Your task to perform on an android device: Search for pizza restaurants on Maps Image 0: 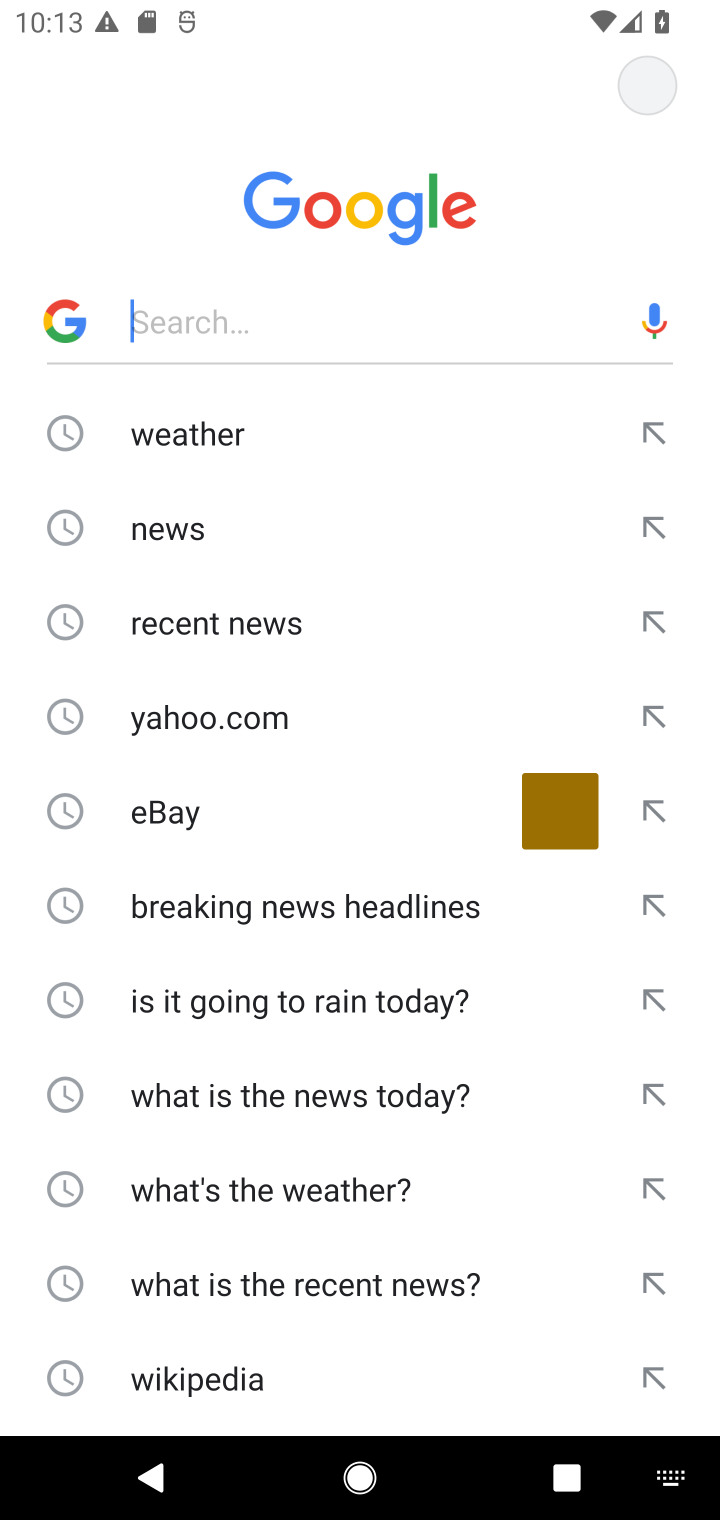
Step 0: press home button
Your task to perform on an android device: Search for pizza restaurants on Maps Image 1: 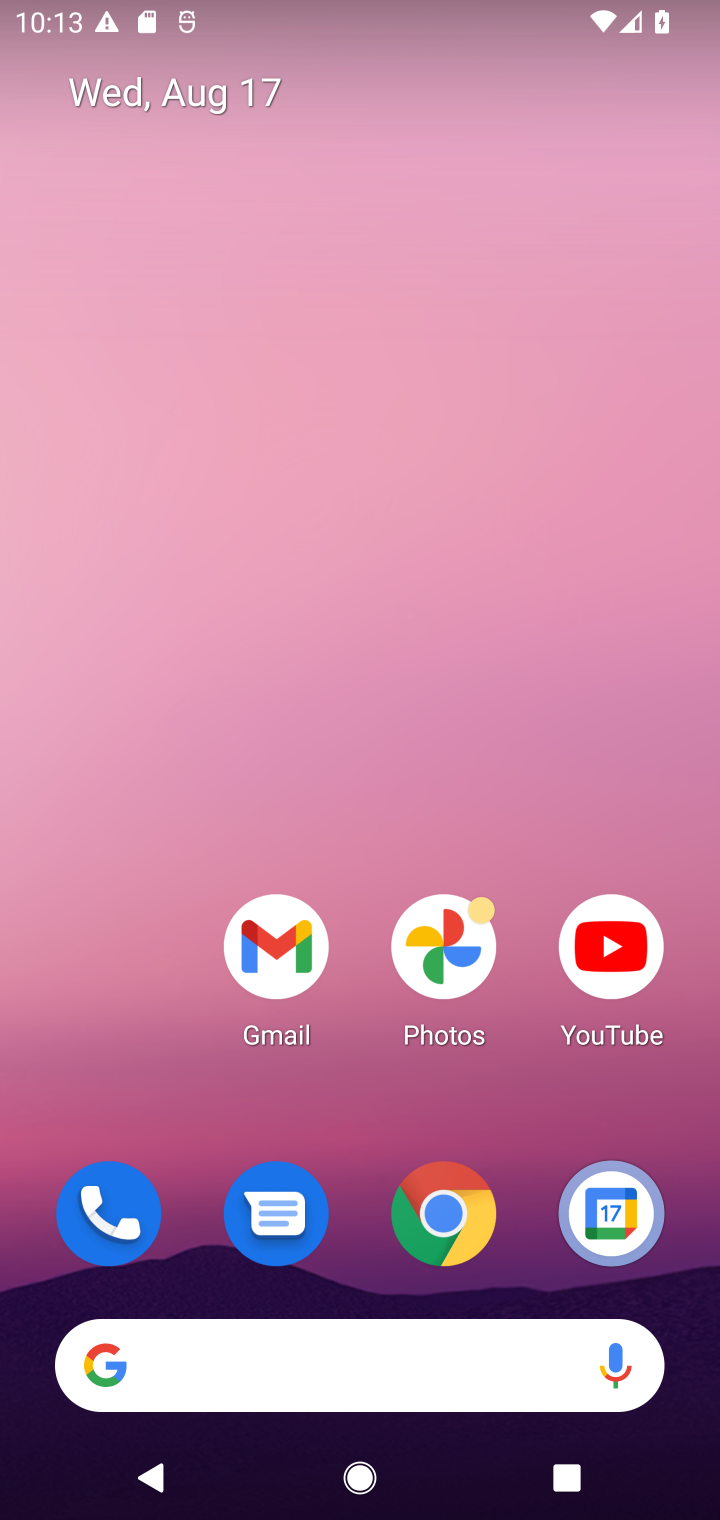
Step 1: drag from (674, 1288) to (425, 51)
Your task to perform on an android device: Search for pizza restaurants on Maps Image 2: 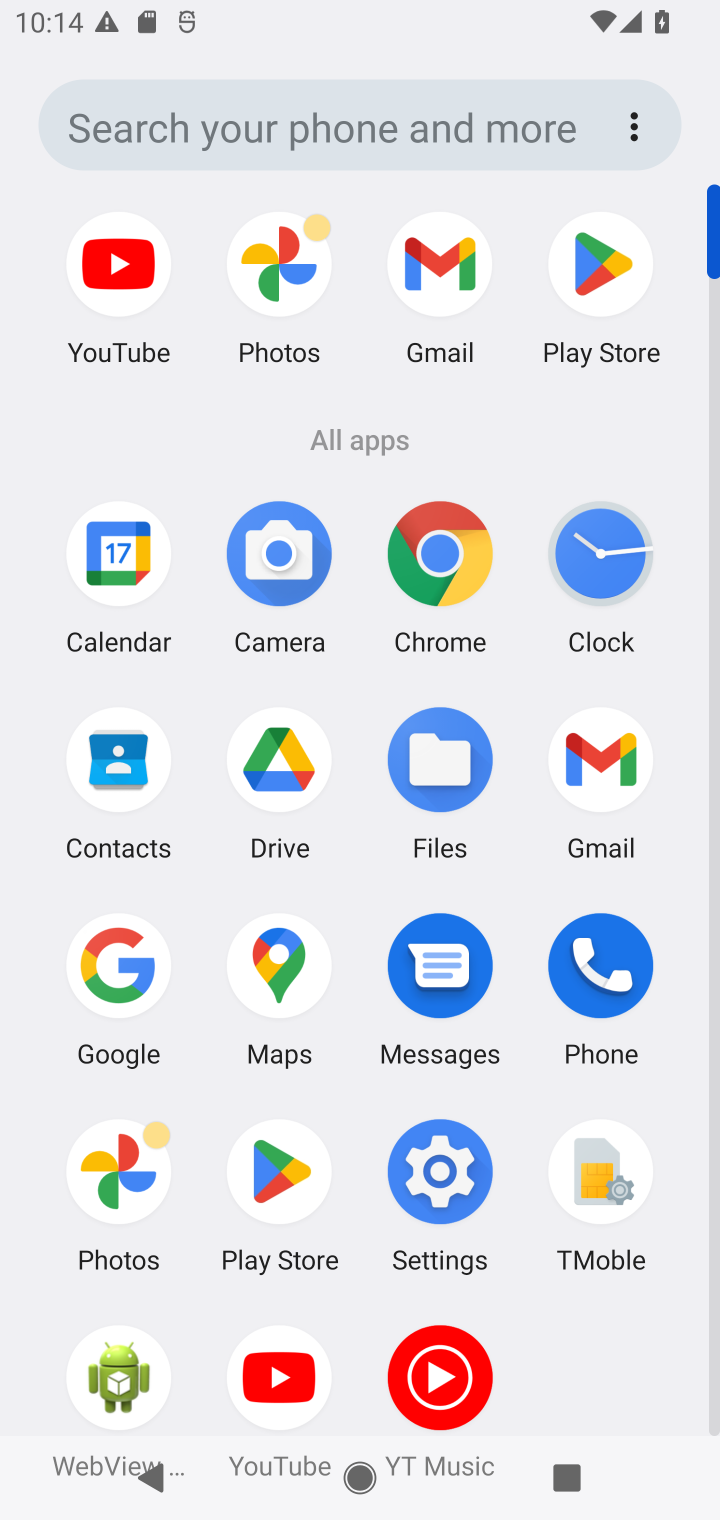
Step 2: click (270, 974)
Your task to perform on an android device: Search for pizza restaurants on Maps Image 3: 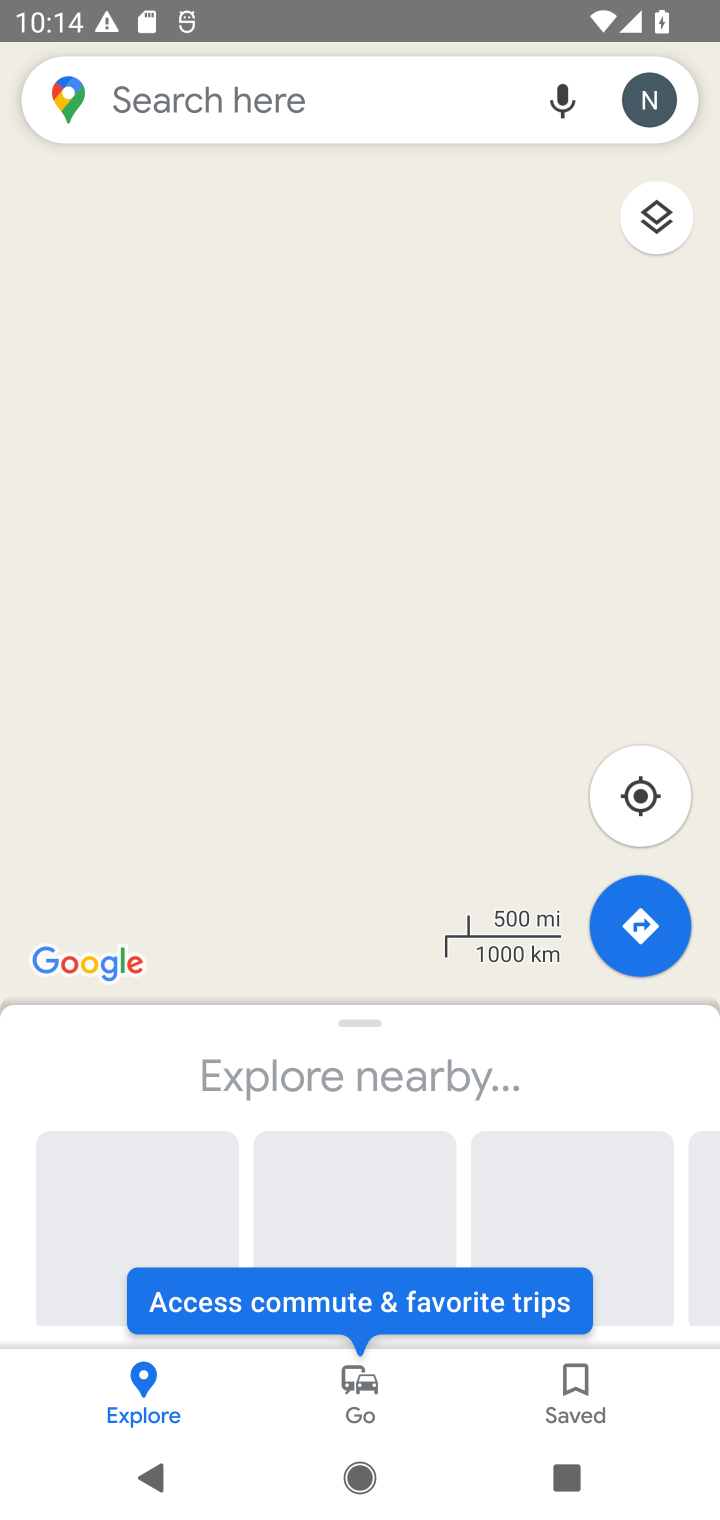
Step 3: click (199, 87)
Your task to perform on an android device: Search for pizza restaurants on Maps Image 4: 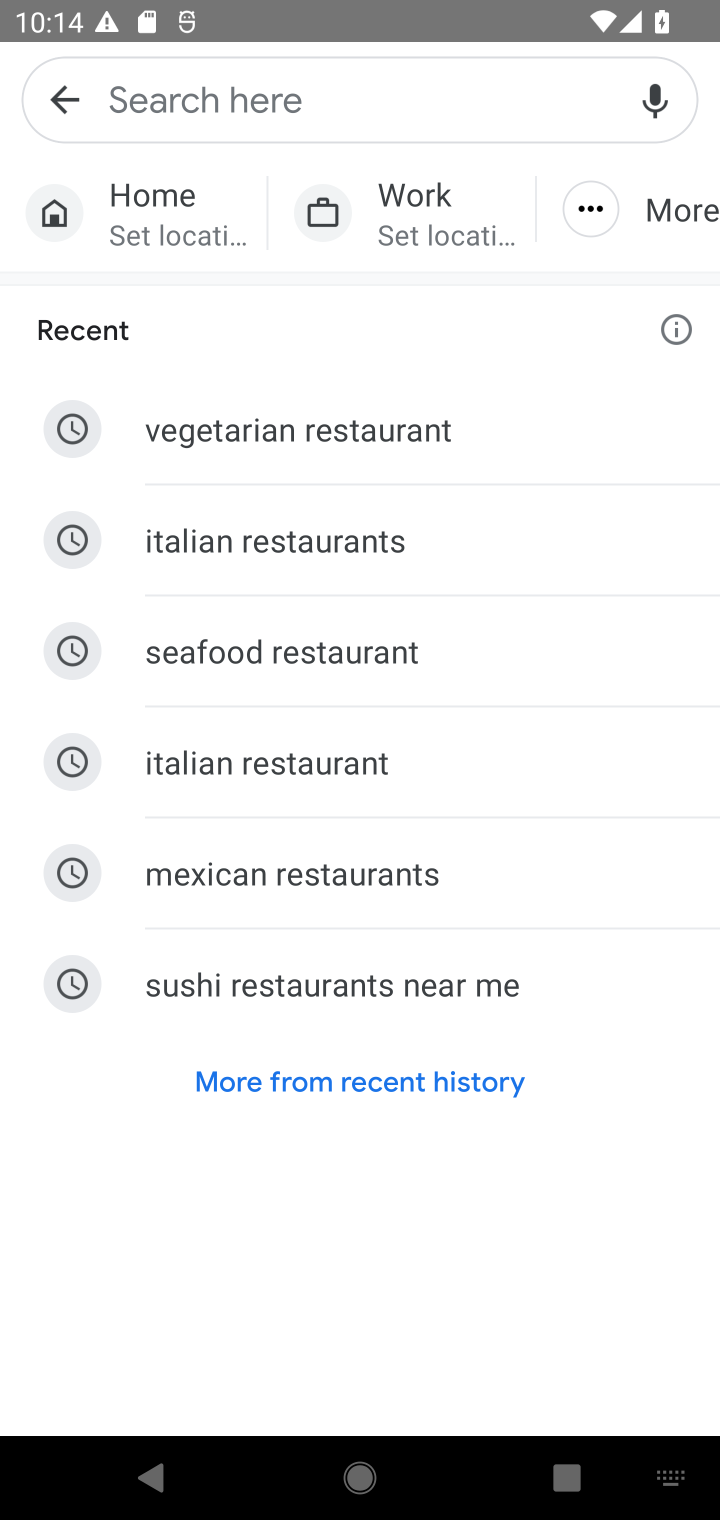
Step 4: type "pizza restaurants"
Your task to perform on an android device: Search for pizza restaurants on Maps Image 5: 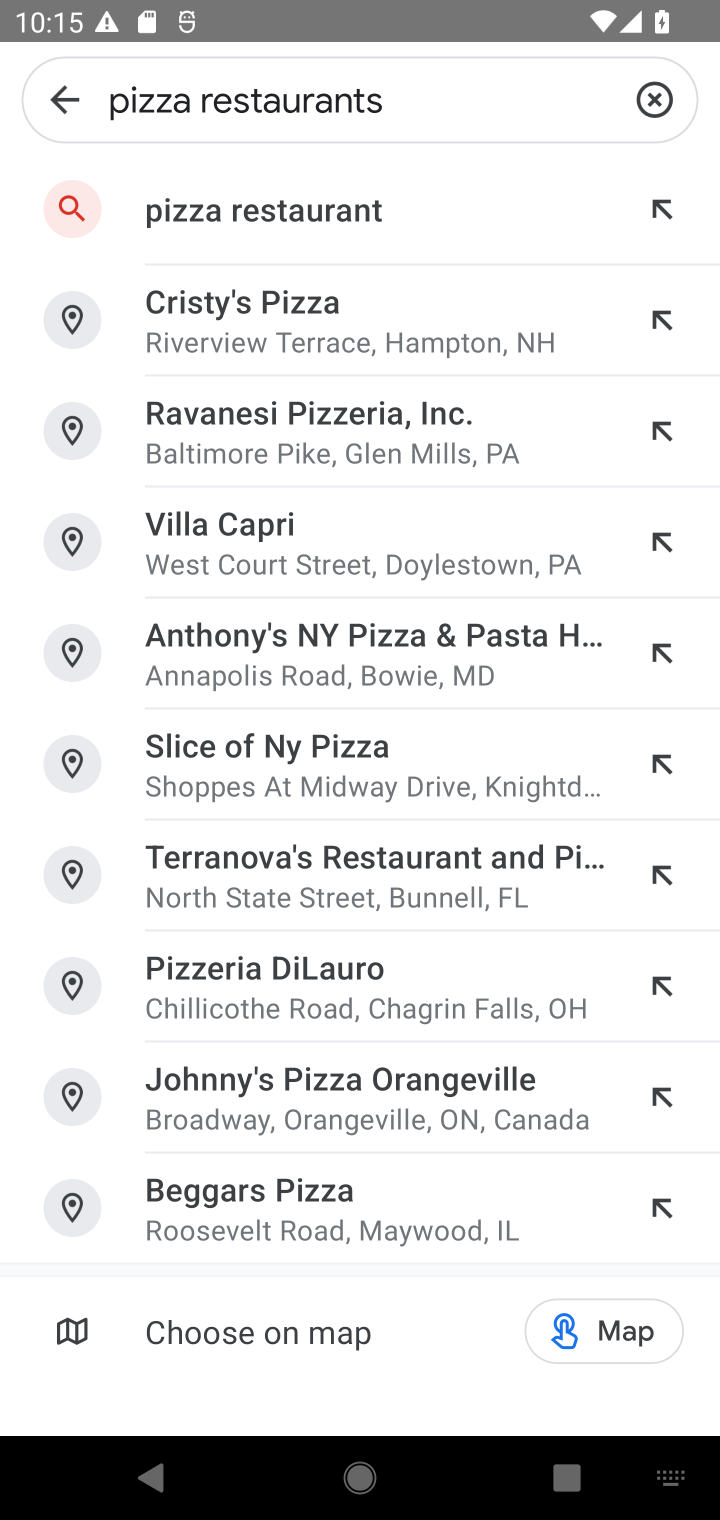
Step 5: click (254, 234)
Your task to perform on an android device: Search for pizza restaurants on Maps Image 6: 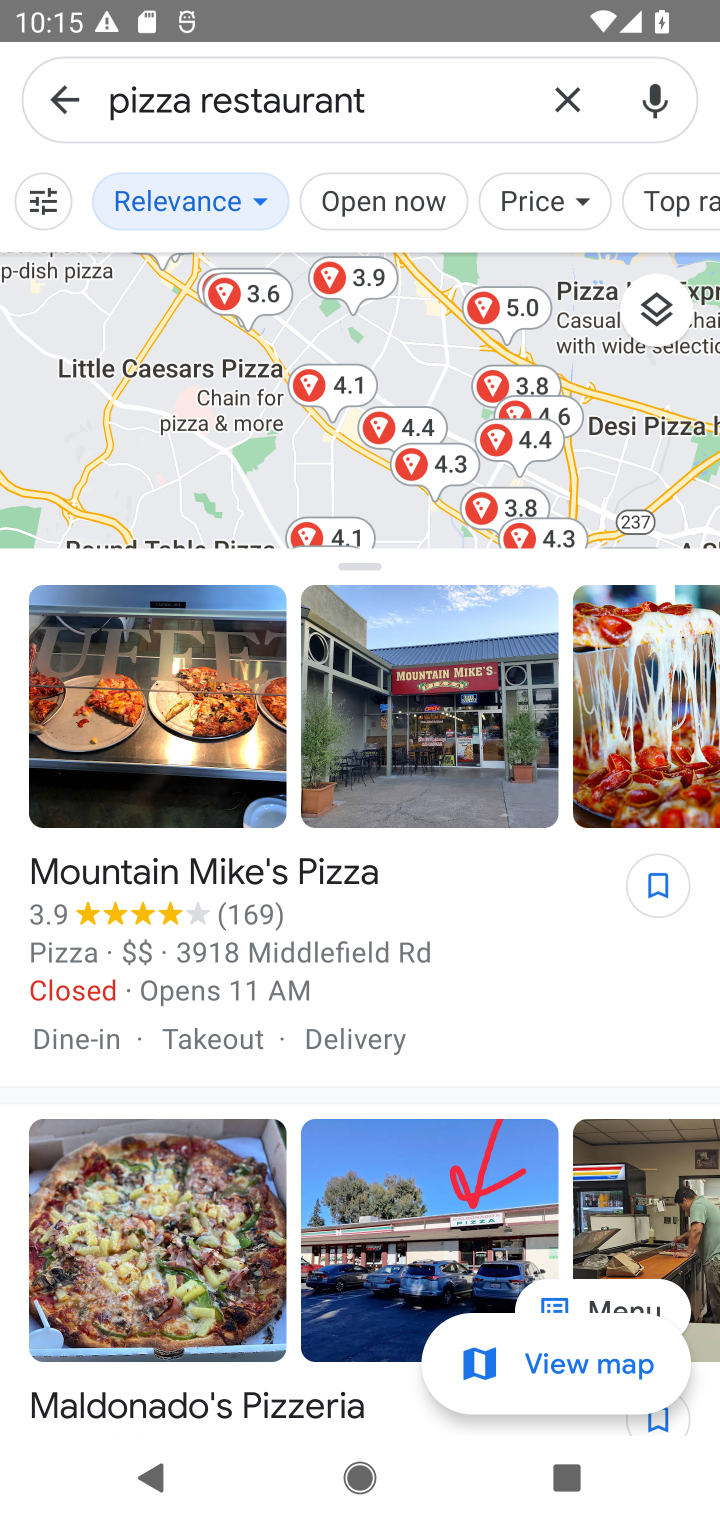
Step 6: task complete